Your task to perform on an android device: Search for "usb-a" on costco.com, select the first entry, and add it to the cart. Image 0: 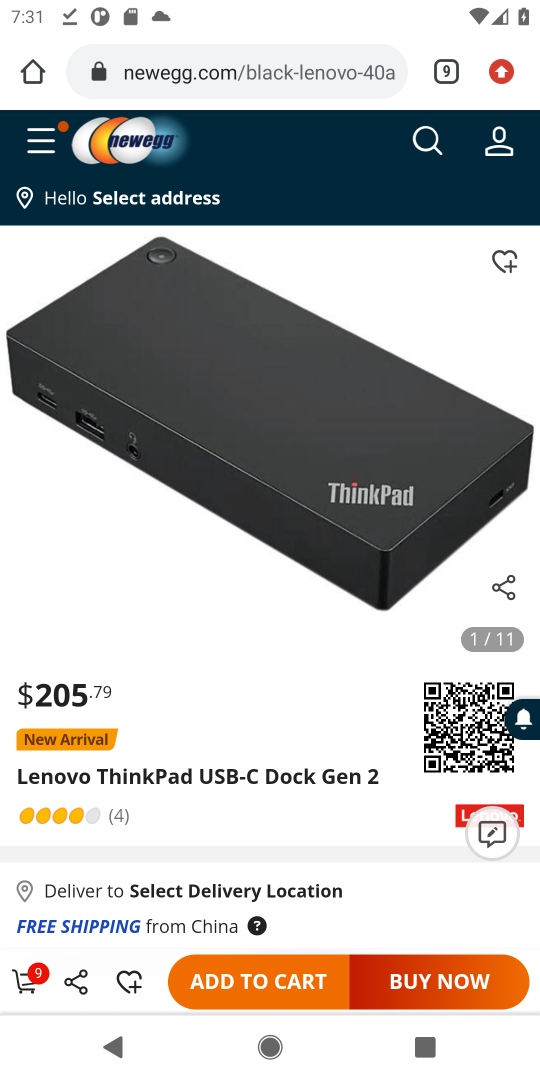
Step 0: task complete